Your task to perform on an android device: turn off location Image 0: 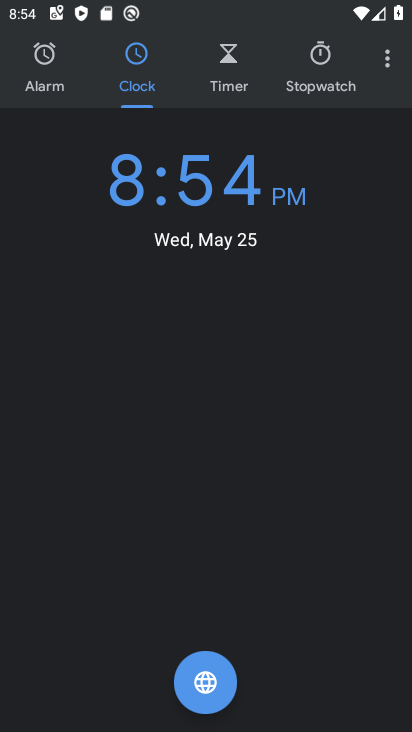
Step 0: press back button
Your task to perform on an android device: turn off location Image 1: 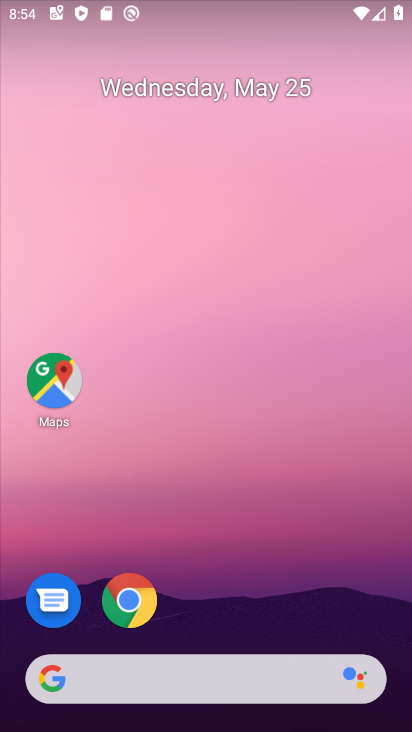
Step 1: drag from (289, 640) to (260, 35)
Your task to perform on an android device: turn off location Image 2: 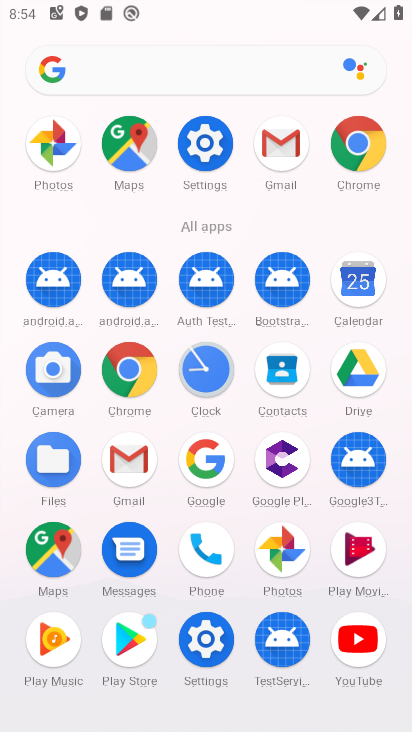
Step 2: drag from (0, 611) to (30, 268)
Your task to perform on an android device: turn off location Image 3: 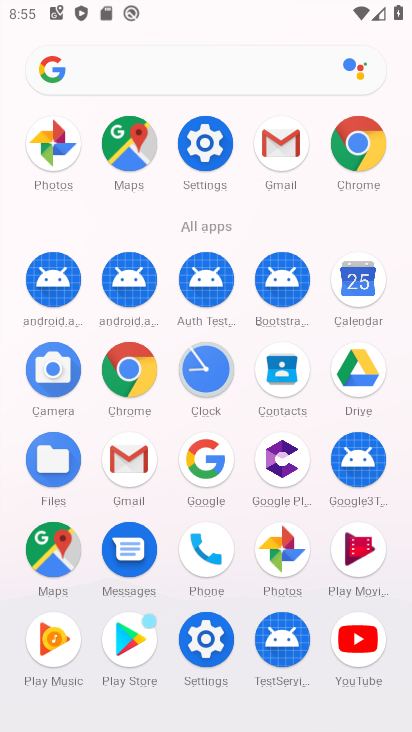
Step 3: click (205, 642)
Your task to perform on an android device: turn off location Image 4: 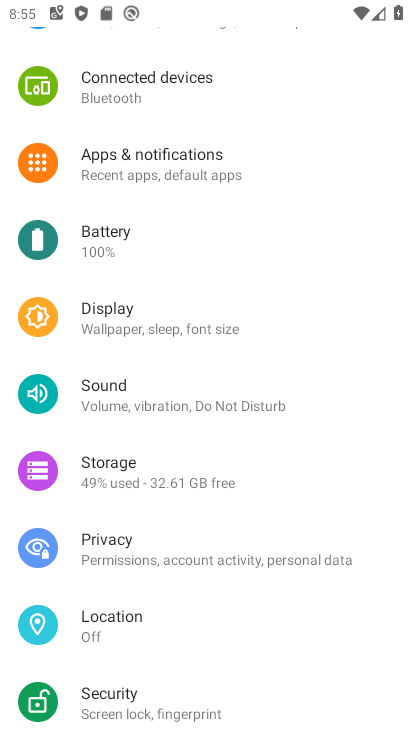
Step 4: click (120, 602)
Your task to perform on an android device: turn off location Image 5: 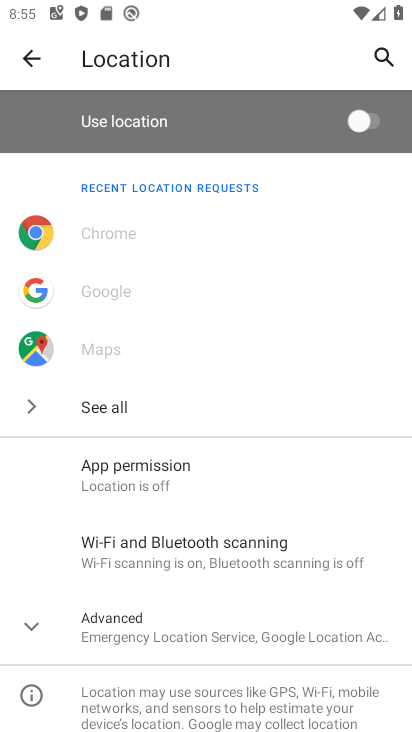
Step 5: task complete